Your task to perform on an android device: Open calendar and show me the third week of next month Image 0: 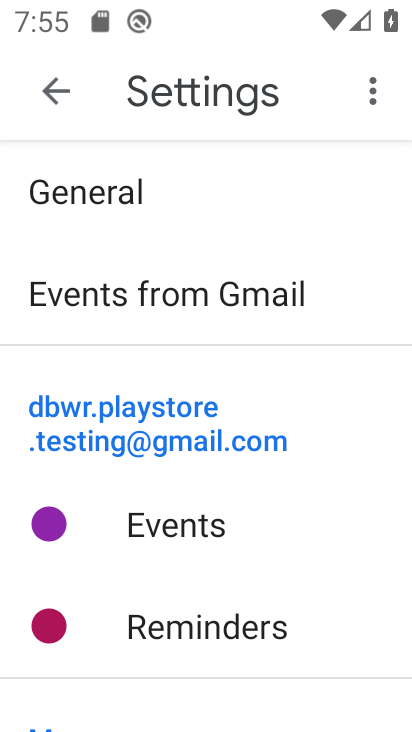
Step 0: press home button
Your task to perform on an android device: Open calendar and show me the third week of next month Image 1: 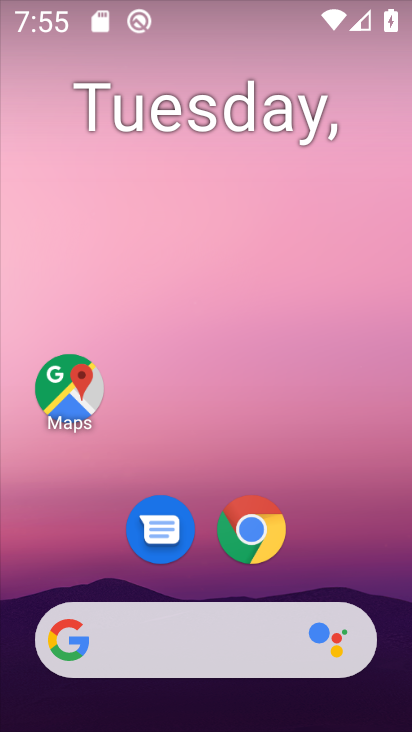
Step 1: drag from (210, 579) to (289, 0)
Your task to perform on an android device: Open calendar and show me the third week of next month Image 2: 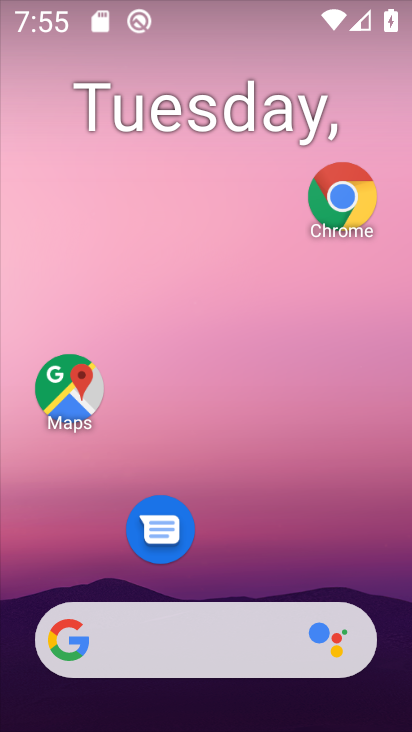
Step 2: drag from (246, 569) to (225, 11)
Your task to perform on an android device: Open calendar and show me the third week of next month Image 3: 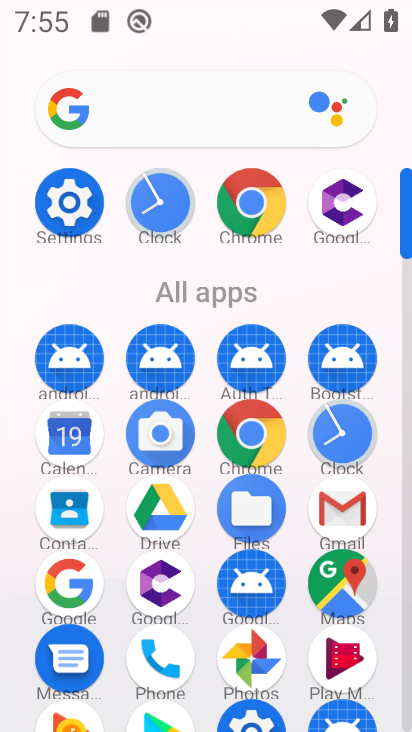
Step 3: click (81, 443)
Your task to perform on an android device: Open calendar and show me the third week of next month Image 4: 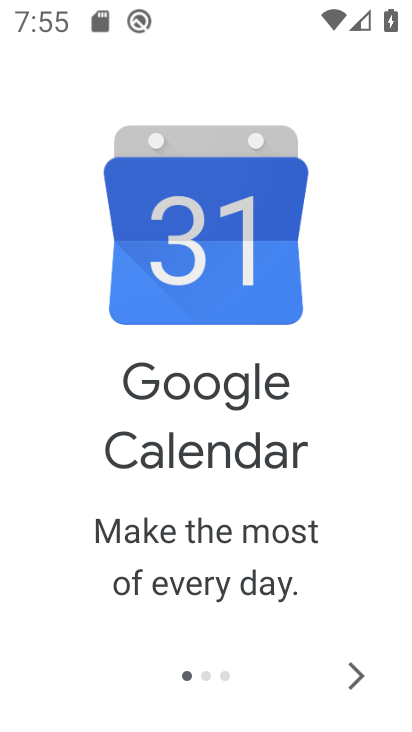
Step 4: click (357, 674)
Your task to perform on an android device: Open calendar and show me the third week of next month Image 5: 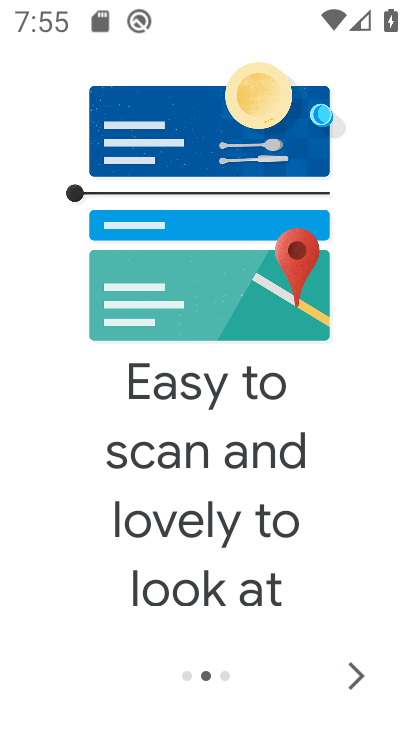
Step 5: click (357, 674)
Your task to perform on an android device: Open calendar and show me the third week of next month Image 6: 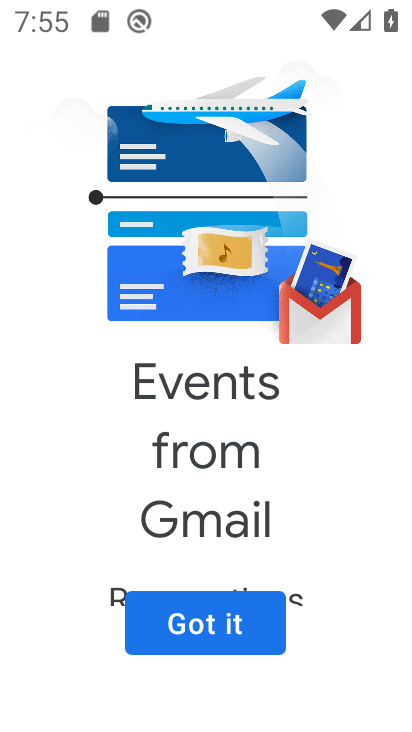
Step 6: click (226, 626)
Your task to perform on an android device: Open calendar and show me the third week of next month Image 7: 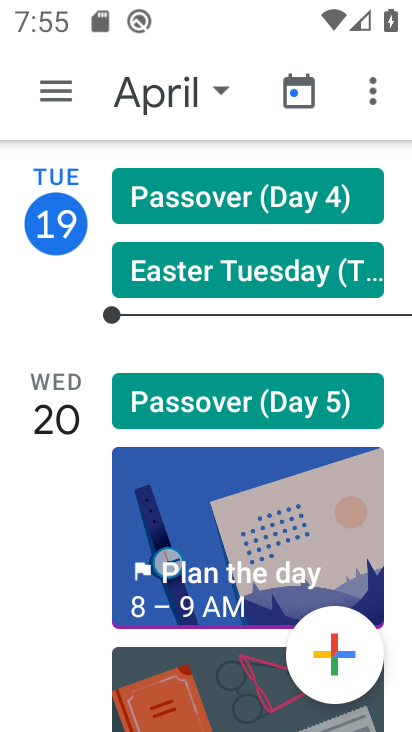
Step 7: click (141, 84)
Your task to perform on an android device: Open calendar and show me the third week of next month Image 8: 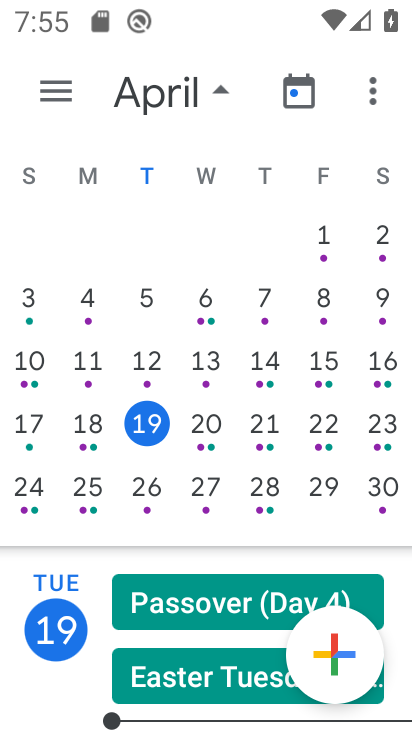
Step 8: drag from (300, 316) to (0, 269)
Your task to perform on an android device: Open calendar and show me the third week of next month Image 9: 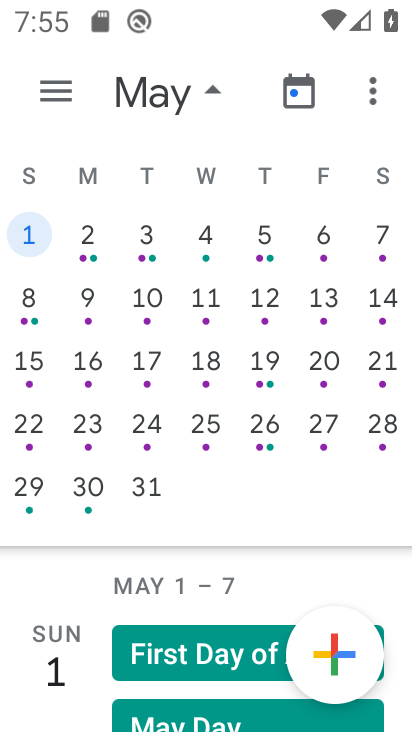
Step 9: click (63, 84)
Your task to perform on an android device: Open calendar and show me the third week of next month Image 10: 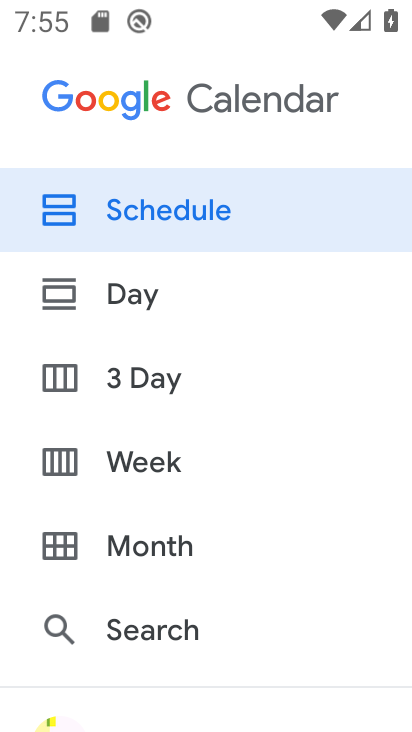
Step 10: click (139, 480)
Your task to perform on an android device: Open calendar and show me the third week of next month Image 11: 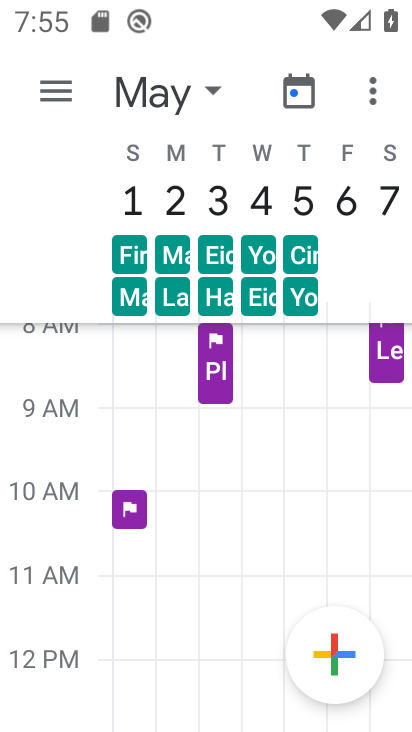
Step 11: task complete